Your task to perform on an android device: clear all cookies in the chrome app Image 0: 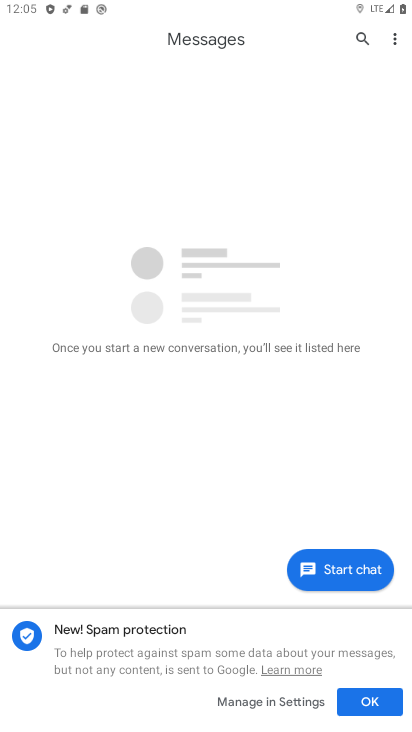
Step 0: press home button
Your task to perform on an android device: clear all cookies in the chrome app Image 1: 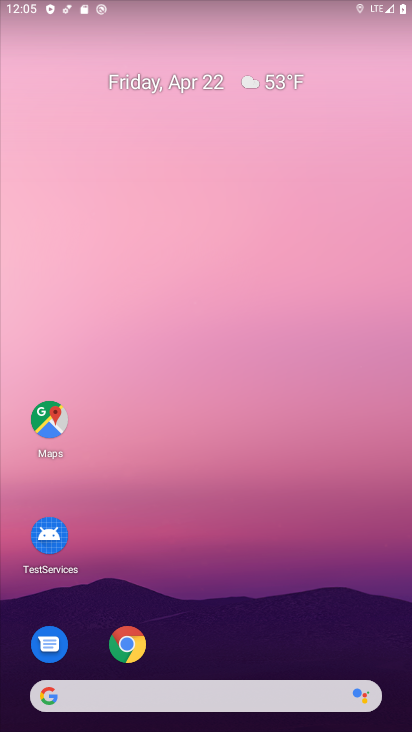
Step 1: drag from (258, 621) to (208, 138)
Your task to perform on an android device: clear all cookies in the chrome app Image 2: 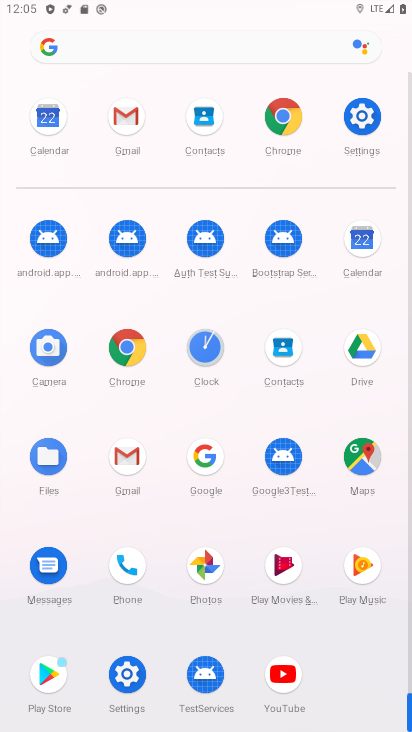
Step 2: click (121, 342)
Your task to perform on an android device: clear all cookies in the chrome app Image 3: 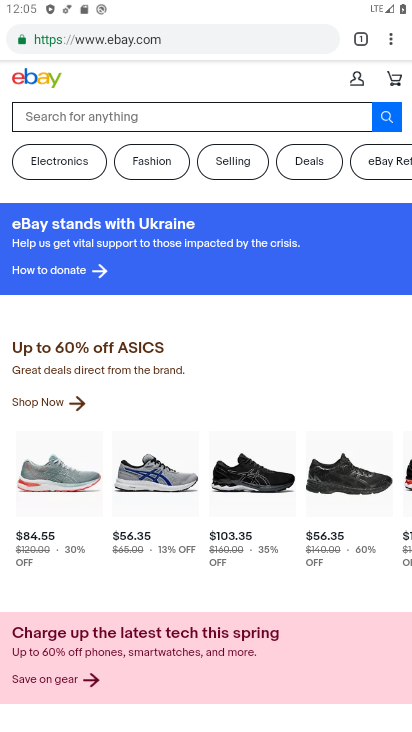
Step 3: drag from (394, 34) to (266, 261)
Your task to perform on an android device: clear all cookies in the chrome app Image 4: 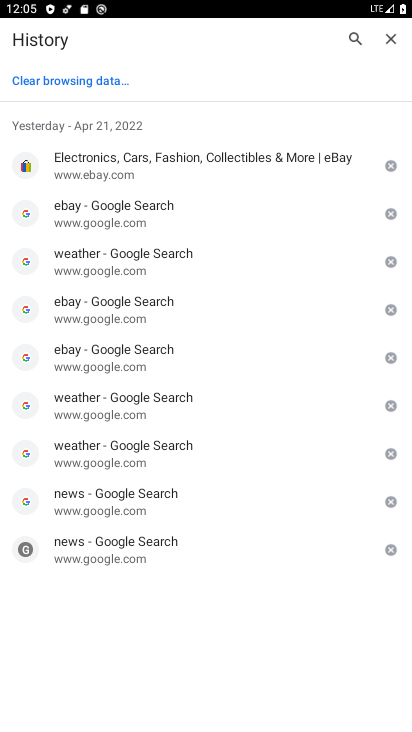
Step 4: click (109, 77)
Your task to perform on an android device: clear all cookies in the chrome app Image 5: 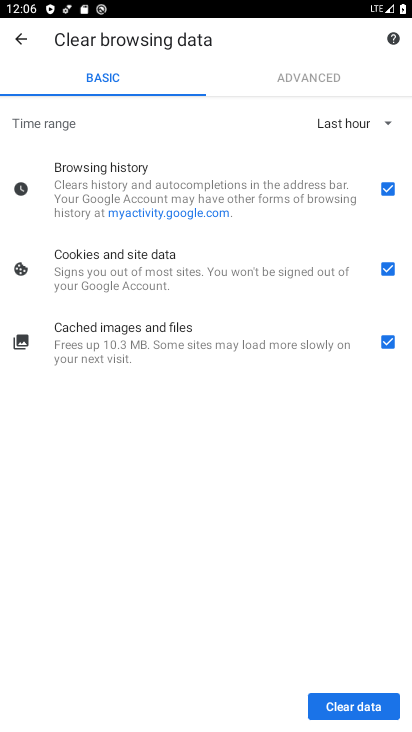
Step 5: click (352, 715)
Your task to perform on an android device: clear all cookies in the chrome app Image 6: 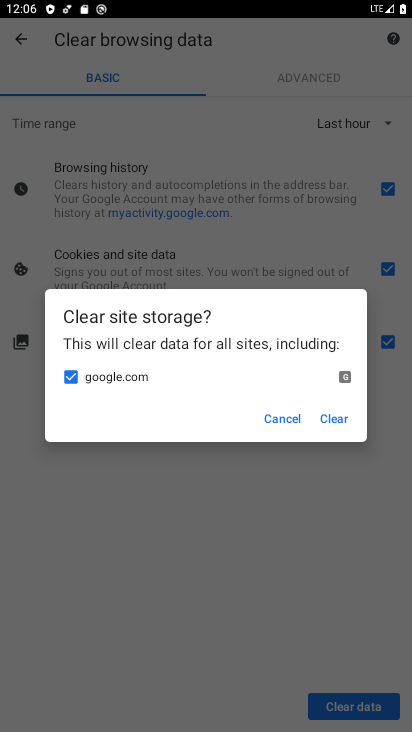
Step 6: click (324, 423)
Your task to perform on an android device: clear all cookies in the chrome app Image 7: 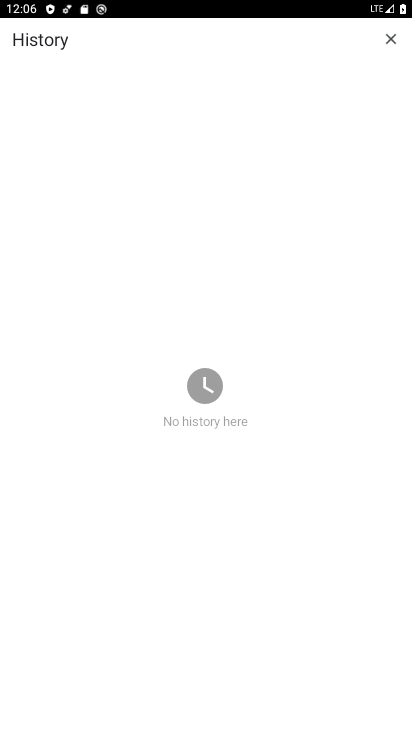
Step 7: task complete